Your task to perform on an android device: Open the calculator Image 0: 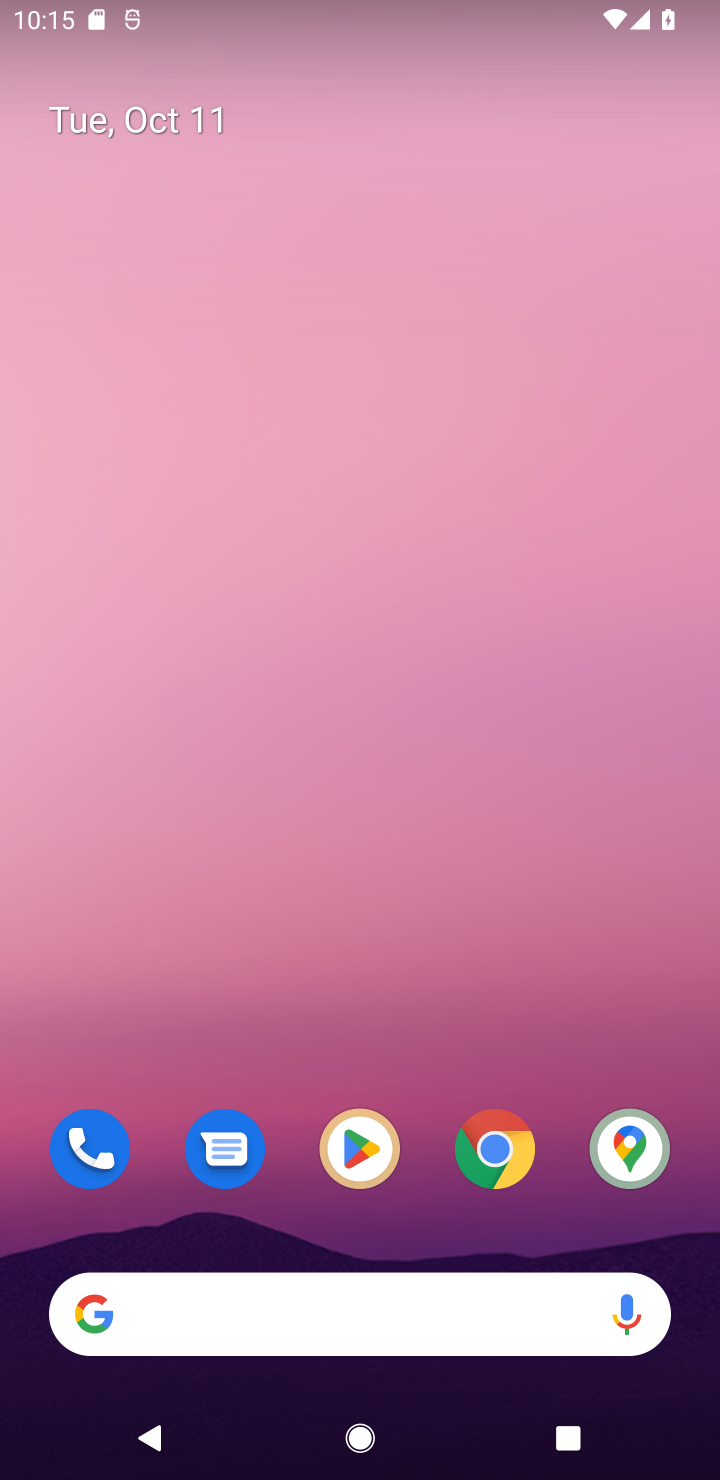
Step 0: press home button
Your task to perform on an android device: Open the calculator Image 1: 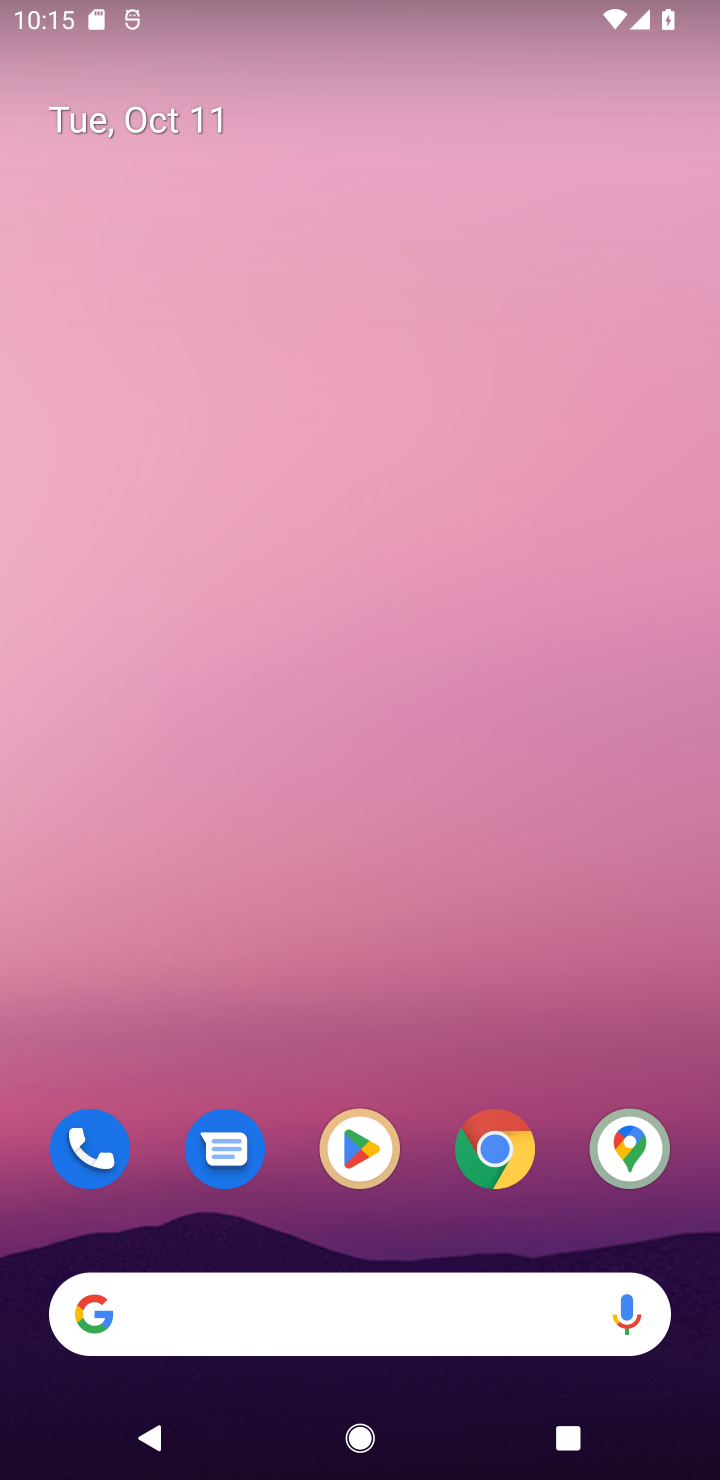
Step 1: task complete